Your task to perform on an android device: Open Yahoo.com Image 0: 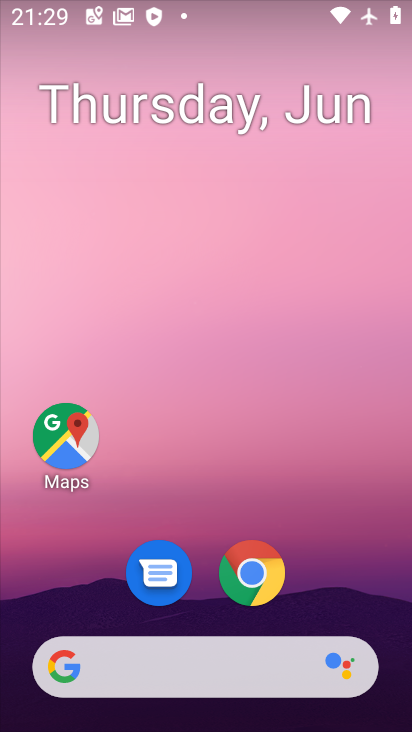
Step 0: click (259, 575)
Your task to perform on an android device: Open Yahoo.com Image 1: 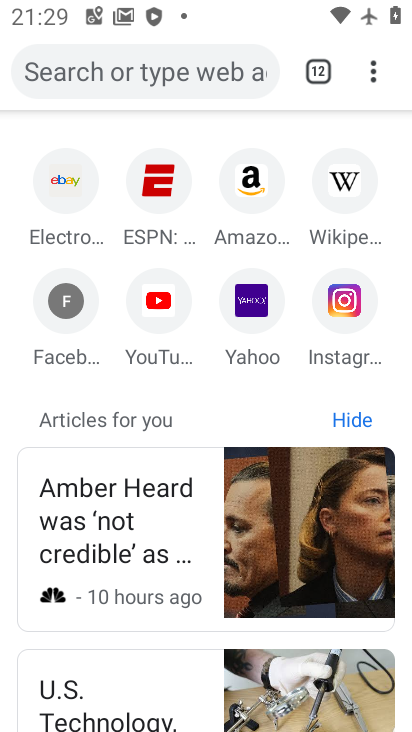
Step 1: click (249, 294)
Your task to perform on an android device: Open Yahoo.com Image 2: 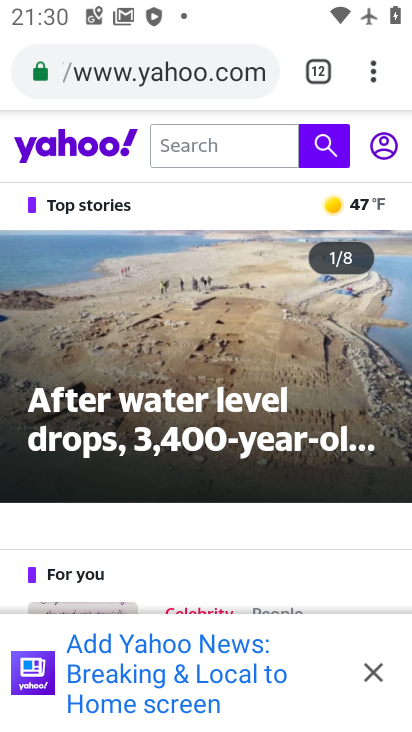
Step 2: task complete